Your task to perform on an android device: Search for sushi restaurants on Maps Image 0: 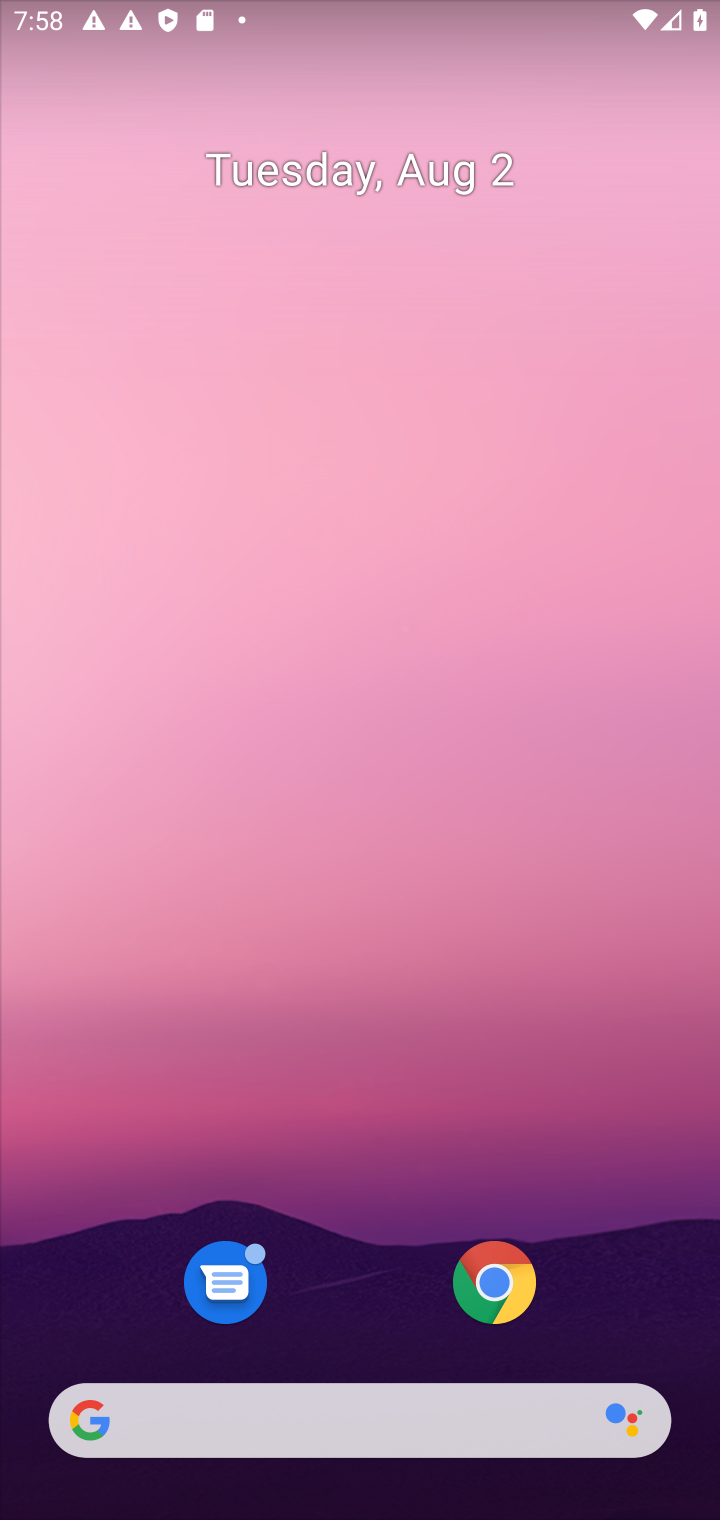
Step 0: drag from (267, 1091) to (298, 23)
Your task to perform on an android device: Search for sushi restaurants on Maps Image 1: 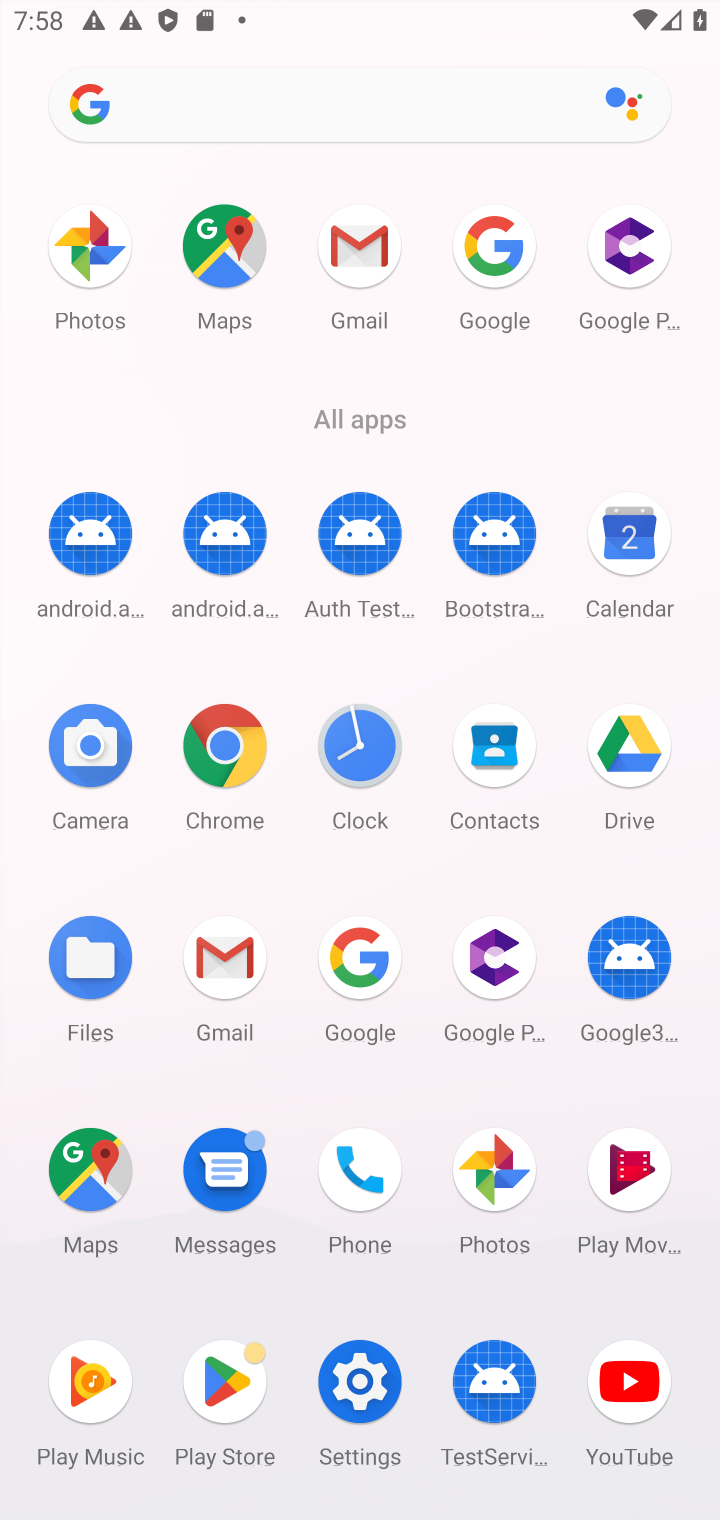
Step 1: click (76, 1182)
Your task to perform on an android device: Search for sushi restaurants on Maps Image 2: 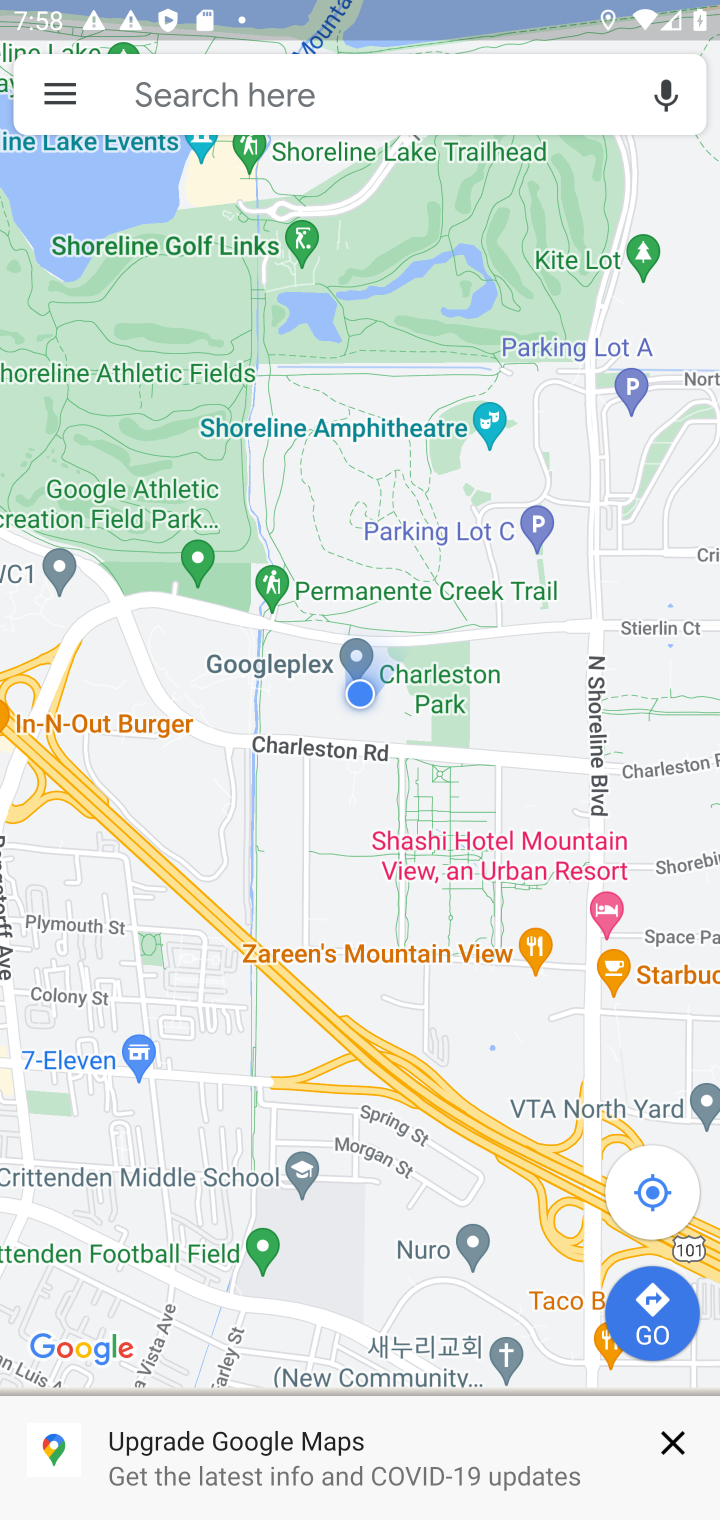
Step 2: click (222, 101)
Your task to perform on an android device: Search for sushi restaurants on Maps Image 3: 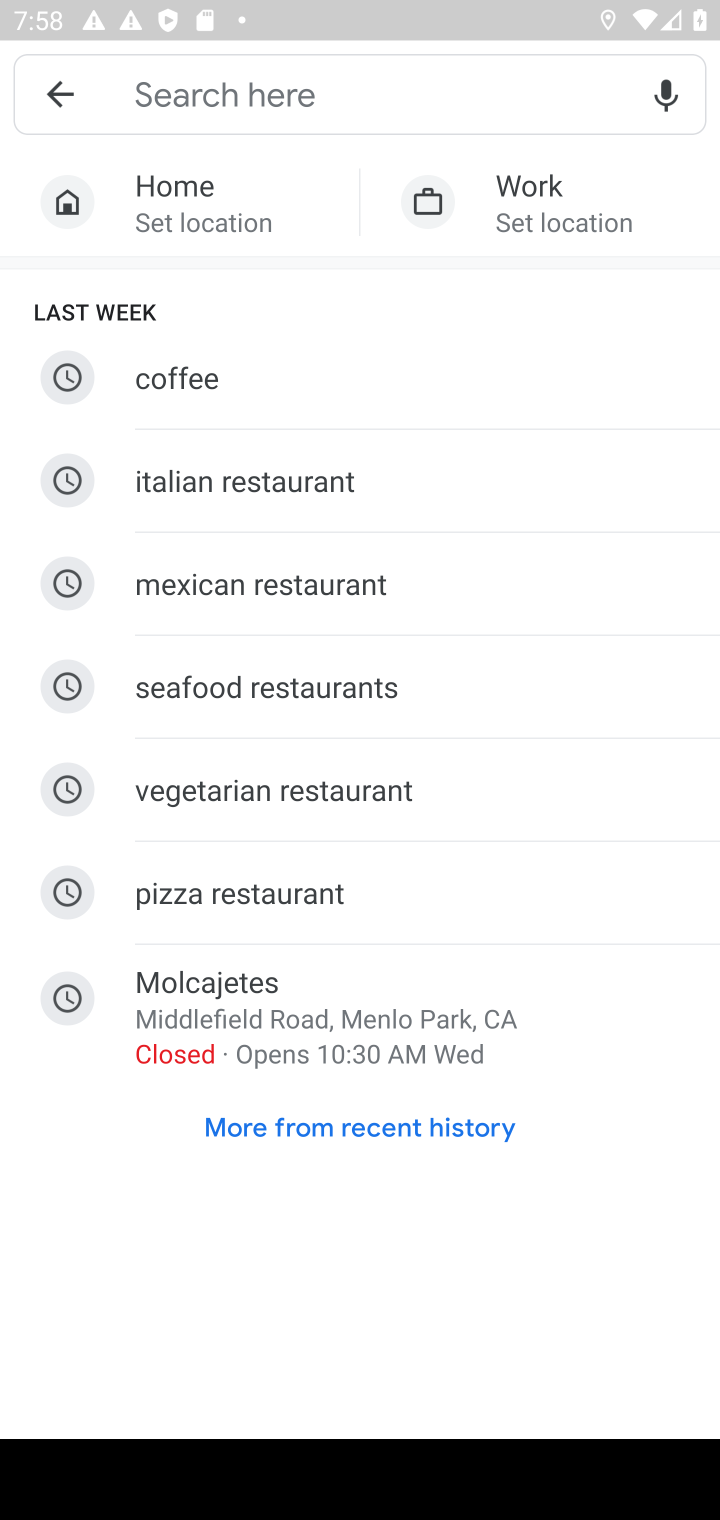
Step 3: type "sushi restaurants"
Your task to perform on an android device: Search for sushi restaurants on Maps Image 4: 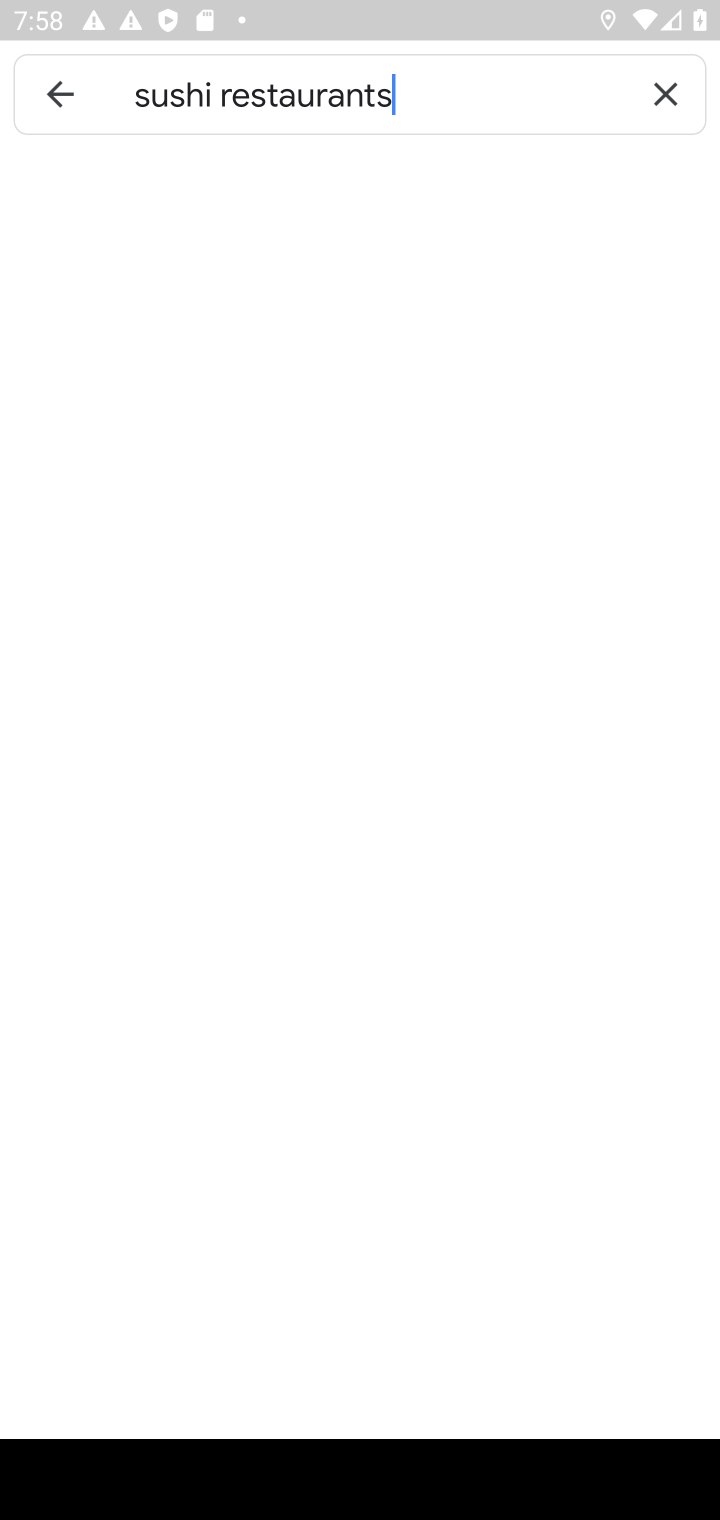
Step 4: type ""
Your task to perform on an android device: Search for sushi restaurants on Maps Image 5: 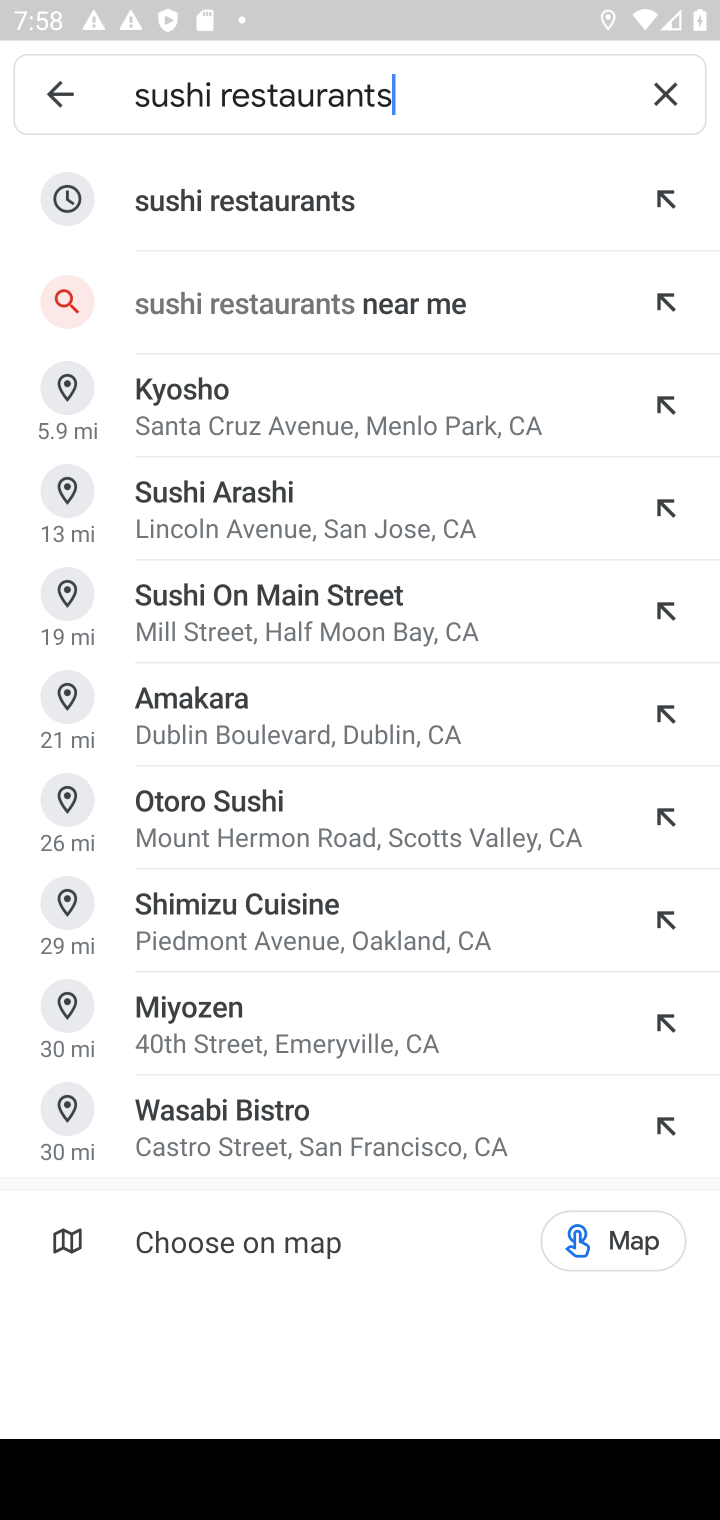
Step 5: click (252, 230)
Your task to perform on an android device: Search for sushi restaurants on Maps Image 6: 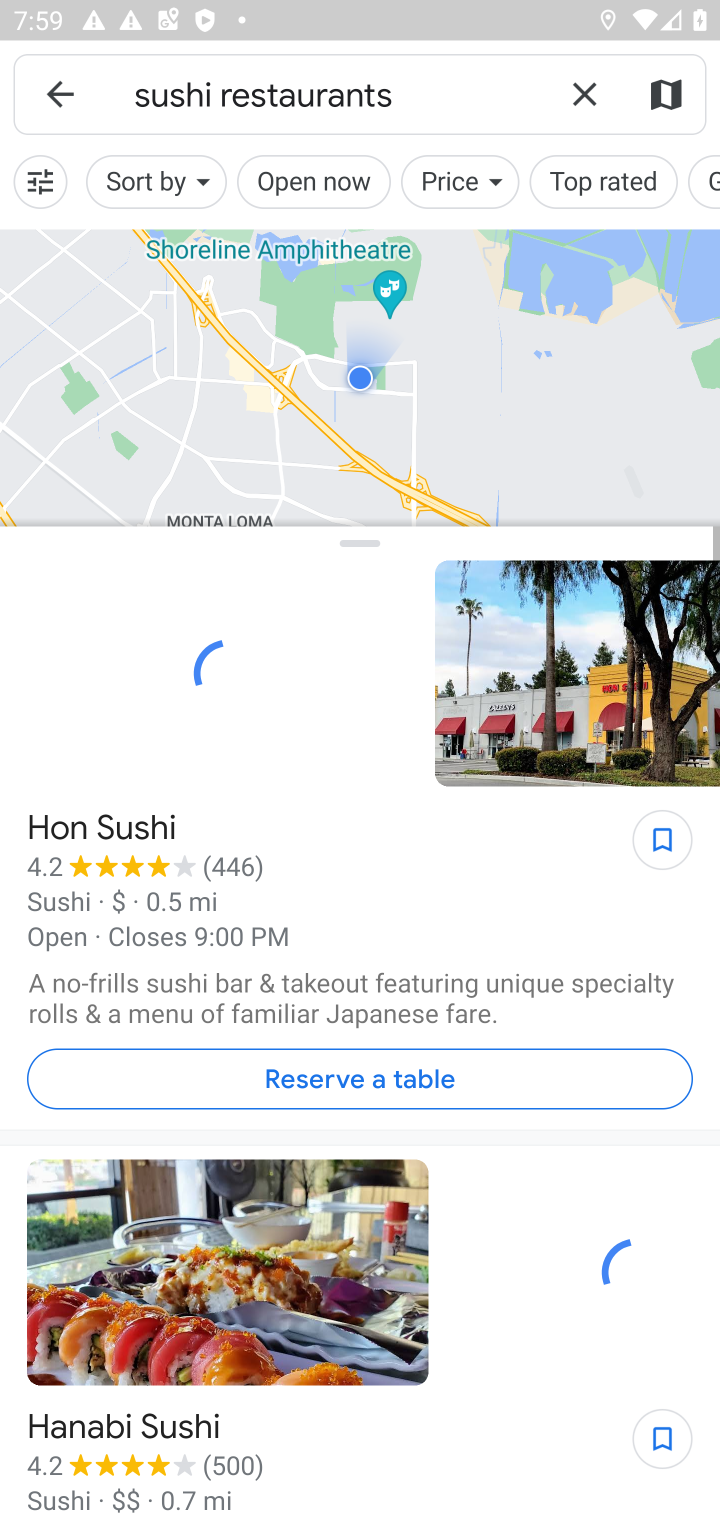
Step 6: task complete